Your task to perform on an android device: Do I have any events today? Image 0: 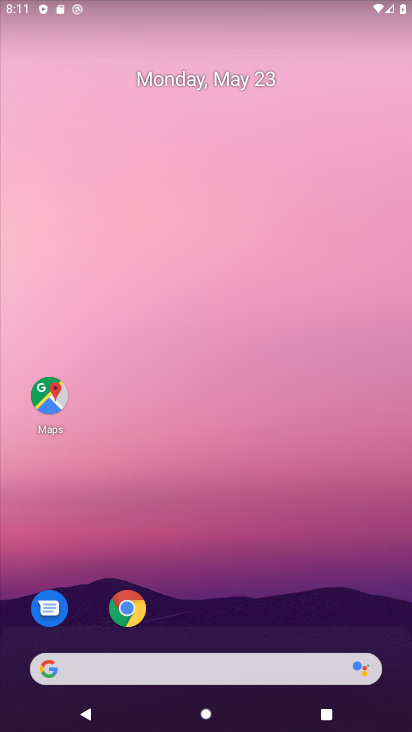
Step 0: drag from (166, 615) to (317, 59)
Your task to perform on an android device: Do I have any events today? Image 1: 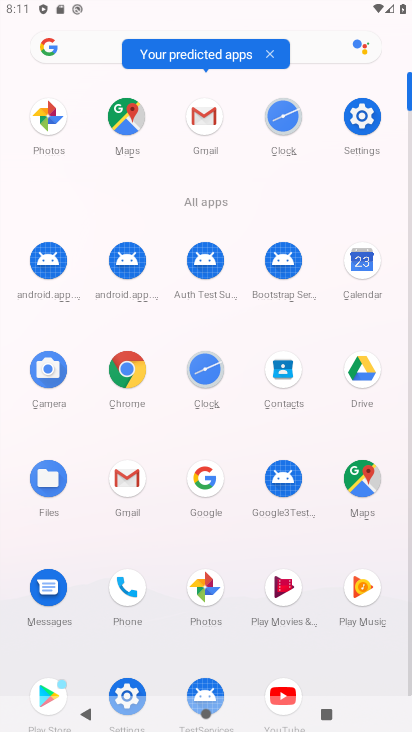
Step 1: click (354, 274)
Your task to perform on an android device: Do I have any events today? Image 2: 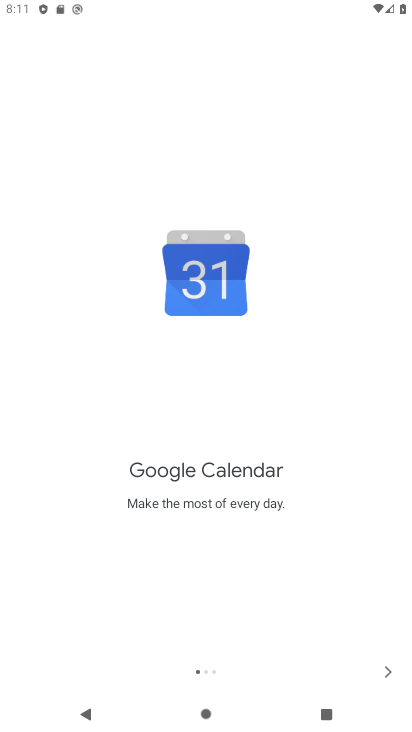
Step 2: click (391, 660)
Your task to perform on an android device: Do I have any events today? Image 3: 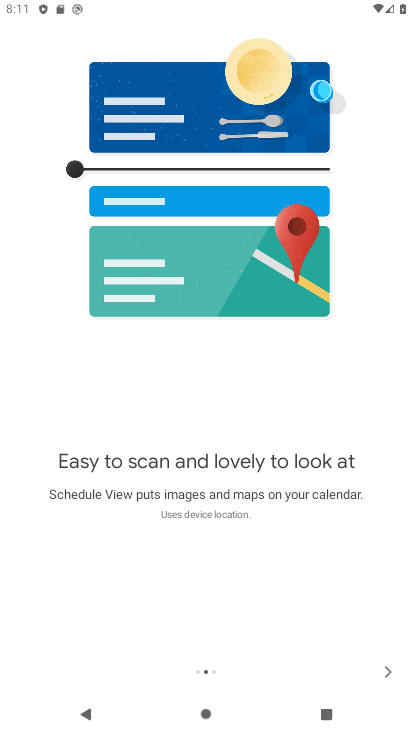
Step 3: click (394, 672)
Your task to perform on an android device: Do I have any events today? Image 4: 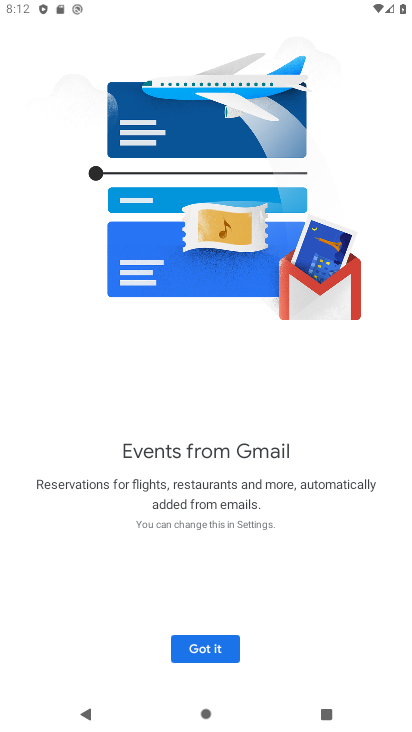
Step 4: click (214, 635)
Your task to perform on an android device: Do I have any events today? Image 5: 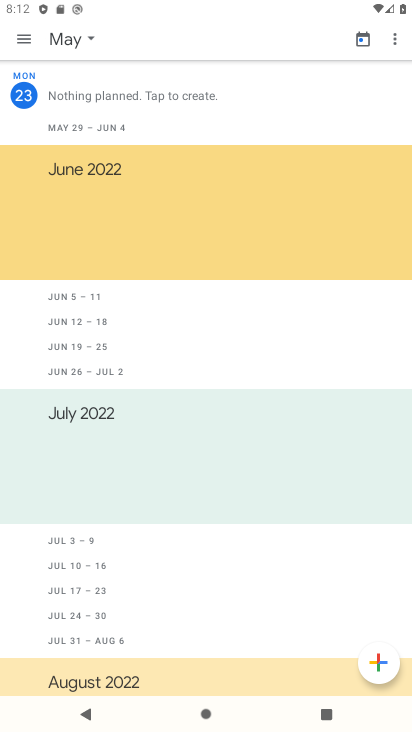
Step 5: task complete